Your task to perform on an android device: Go to Amazon Image 0: 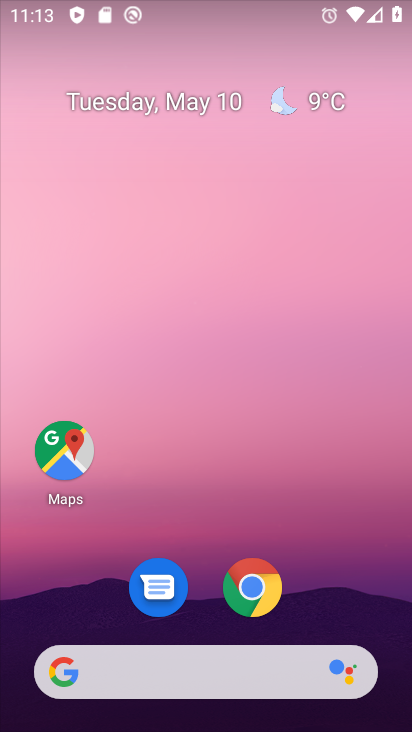
Step 0: click (251, 579)
Your task to perform on an android device: Go to Amazon Image 1: 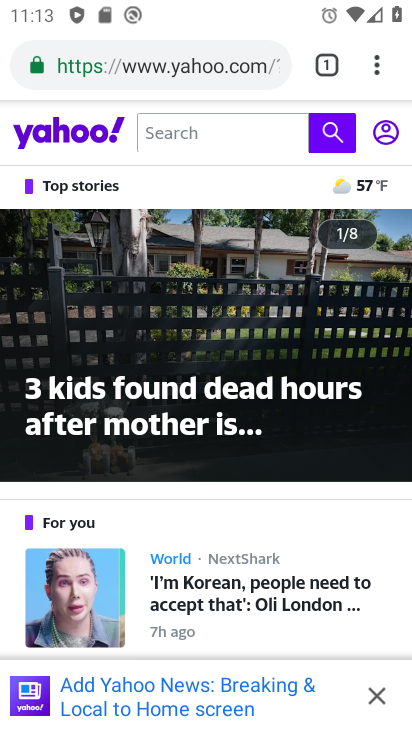
Step 1: click (171, 69)
Your task to perform on an android device: Go to Amazon Image 2: 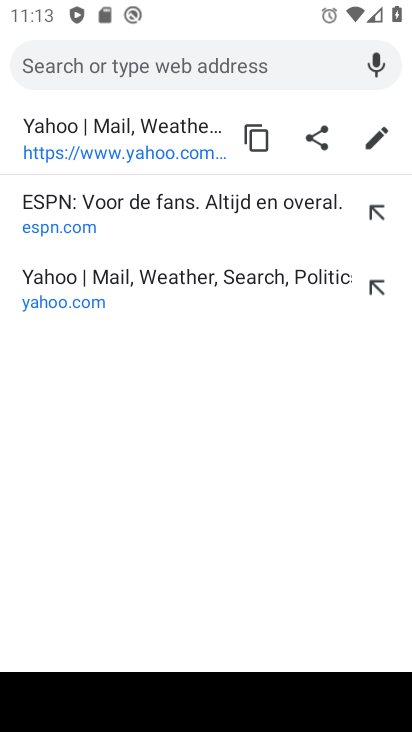
Step 2: type "amazon"
Your task to perform on an android device: Go to Amazon Image 3: 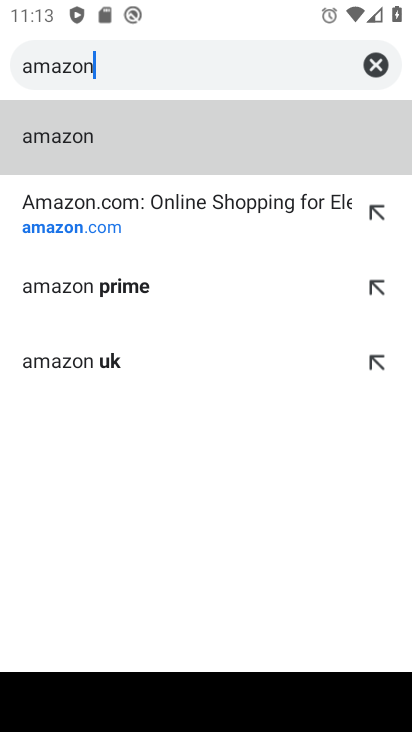
Step 3: click (56, 147)
Your task to perform on an android device: Go to Amazon Image 4: 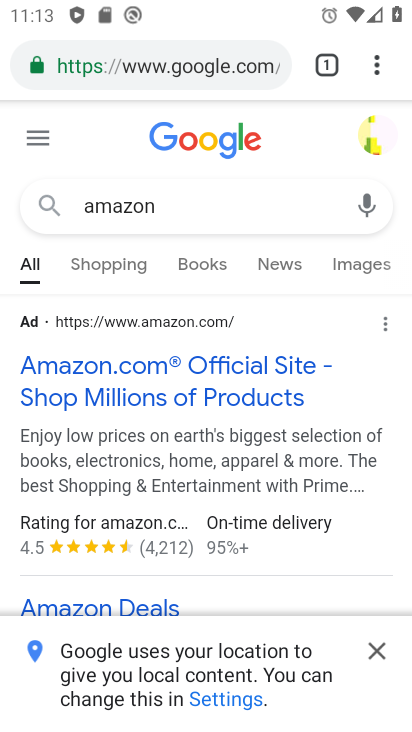
Step 4: click (80, 377)
Your task to perform on an android device: Go to Amazon Image 5: 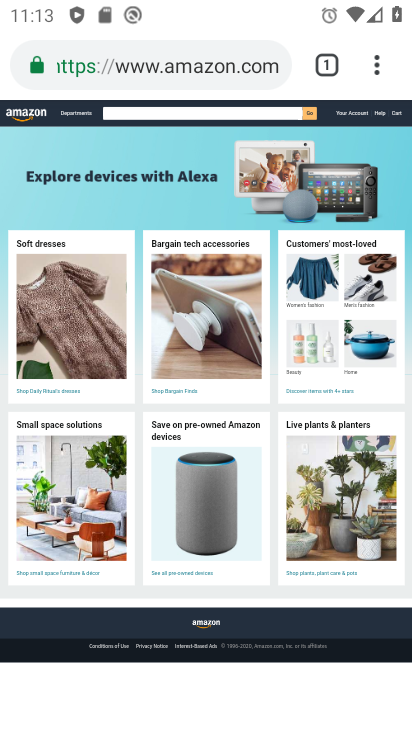
Step 5: task complete